Your task to perform on an android device: turn off priority inbox in the gmail app Image 0: 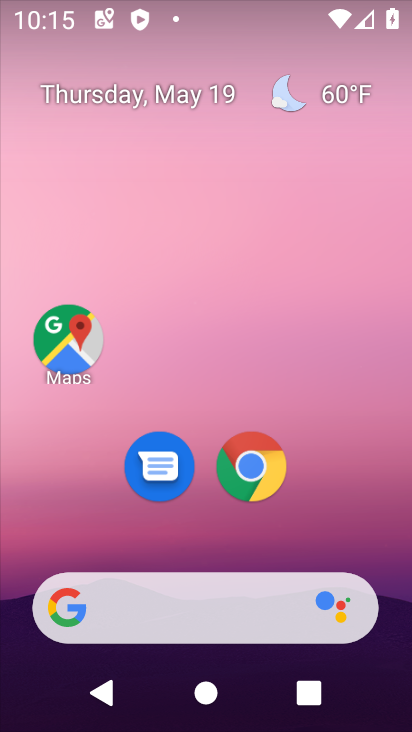
Step 0: drag from (312, 518) to (319, 142)
Your task to perform on an android device: turn off priority inbox in the gmail app Image 1: 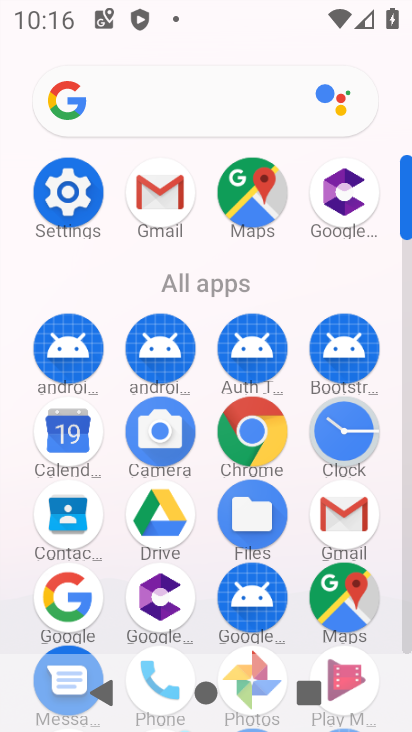
Step 1: click (161, 201)
Your task to perform on an android device: turn off priority inbox in the gmail app Image 2: 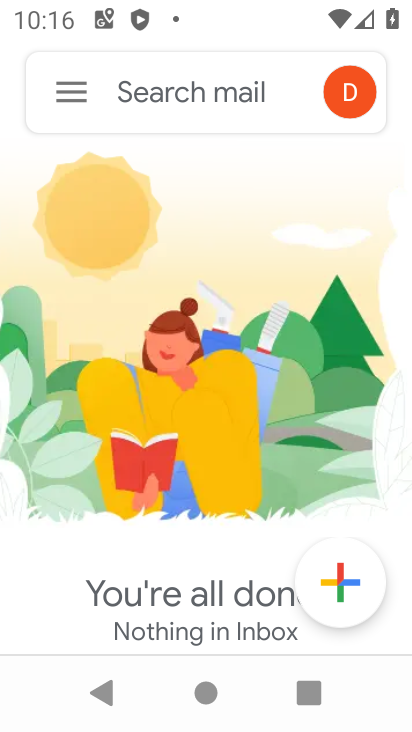
Step 2: click (56, 90)
Your task to perform on an android device: turn off priority inbox in the gmail app Image 3: 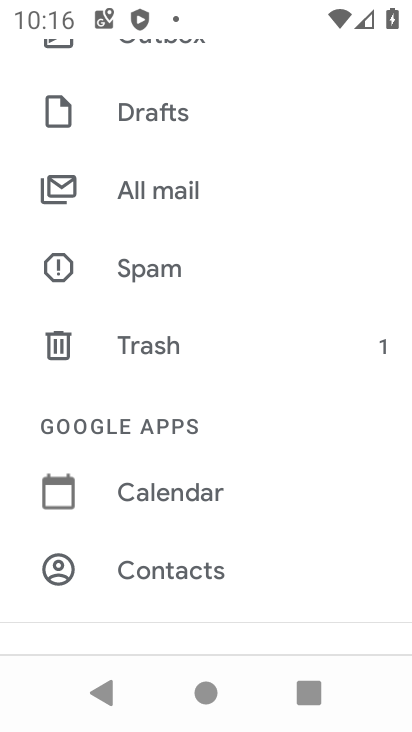
Step 3: drag from (173, 524) to (186, 207)
Your task to perform on an android device: turn off priority inbox in the gmail app Image 4: 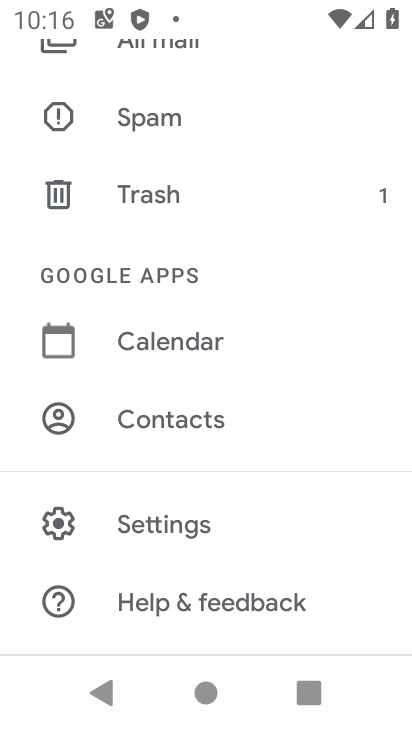
Step 4: click (189, 514)
Your task to perform on an android device: turn off priority inbox in the gmail app Image 5: 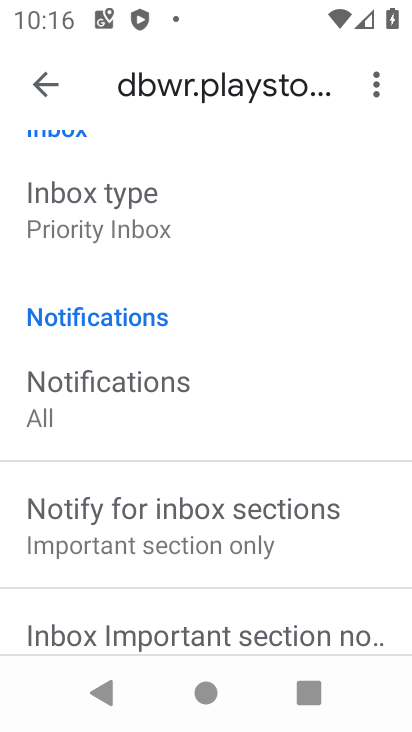
Step 5: click (170, 243)
Your task to perform on an android device: turn off priority inbox in the gmail app Image 6: 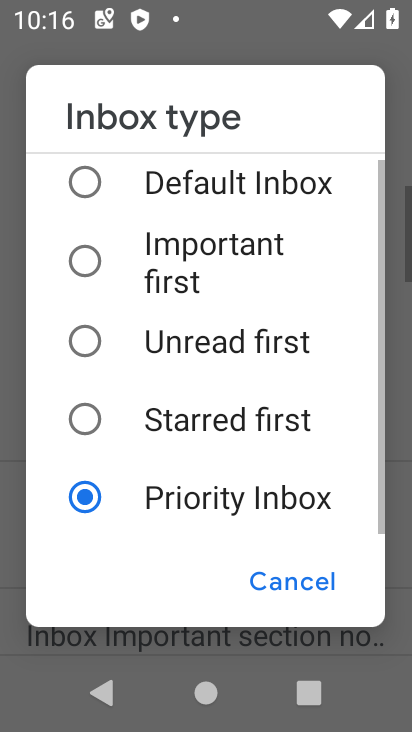
Step 6: click (199, 164)
Your task to perform on an android device: turn off priority inbox in the gmail app Image 7: 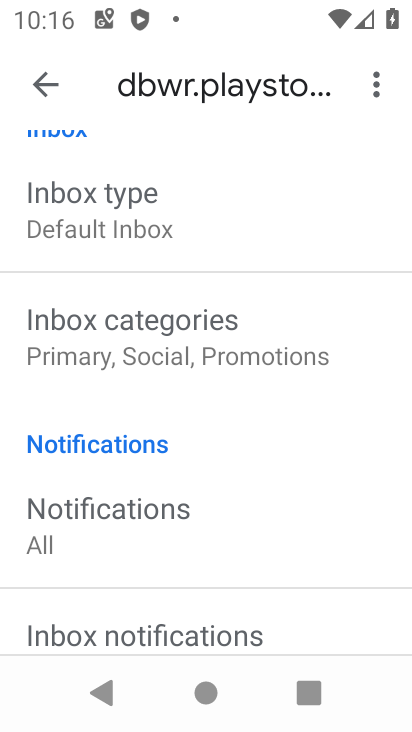
Step 7: task complete